Your task to perform on an android device: Open my contact list Image 0: 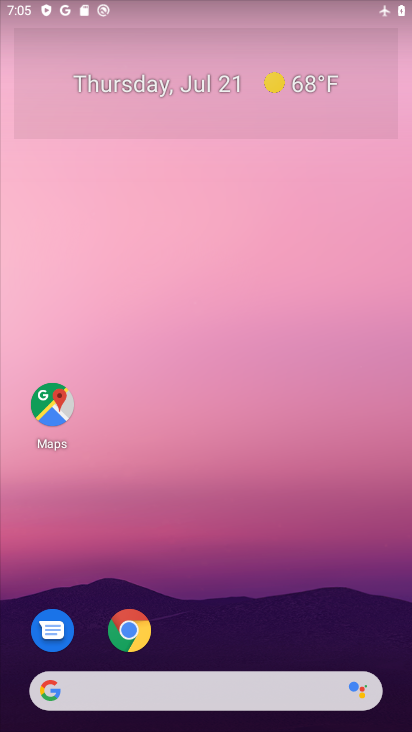
Step 0: drag from (307, 656) to (386, 56)
Your task to perform on an android device: Open my contact list Image 1: 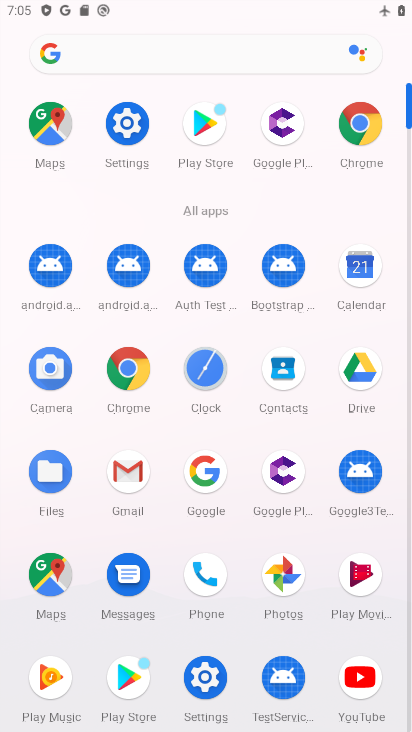
Step 1: click (214, 589)
Your task to perform on an android device: Open my contact list Image 2: 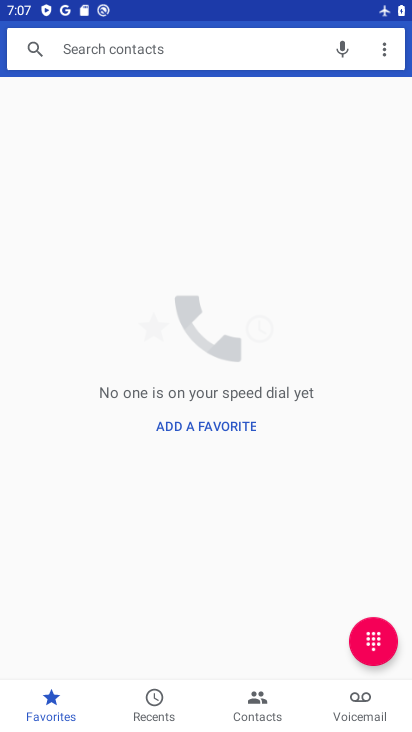
Step 2: click (263, 699)
Your task to perform on an android device: Open my contact list Image 3: 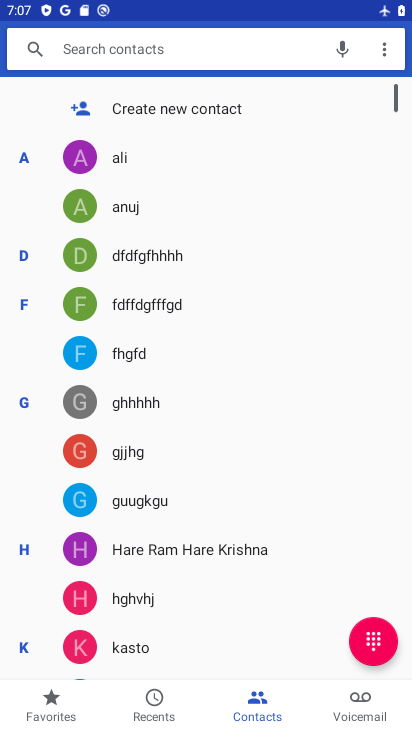
Step 3: task complete